Your task to perform on an android device: turn on data saver in the chrome app Image 0: 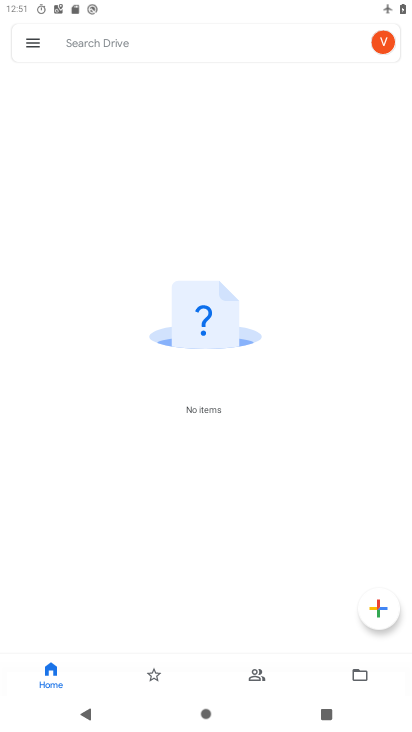
Step 0: press back button
Your task to perform on an android device: turn on data saver in the chrome app Image 1: 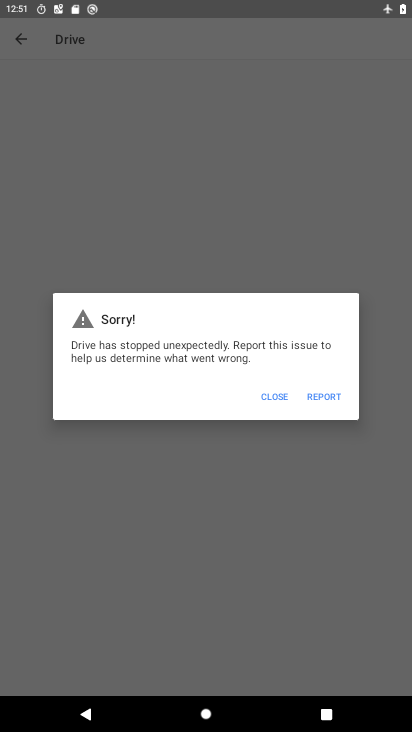
Step 1: press back button
Your task to perform on an android device: turn on data saver in the chrome app Image 2: 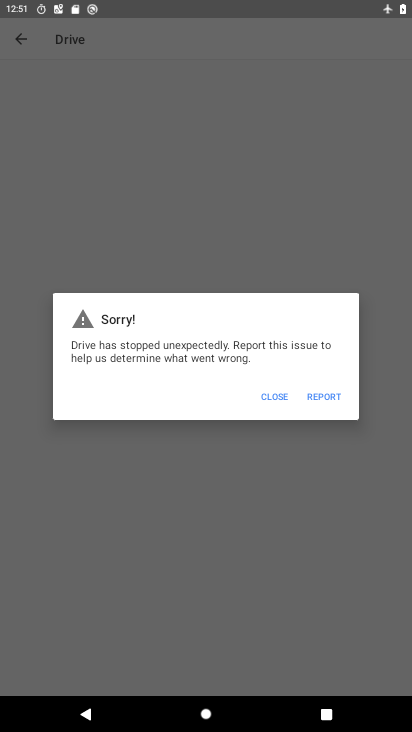
Step 2: press home button
Your task to perform on an android device: turn on data saver in the chrome app Image 3: 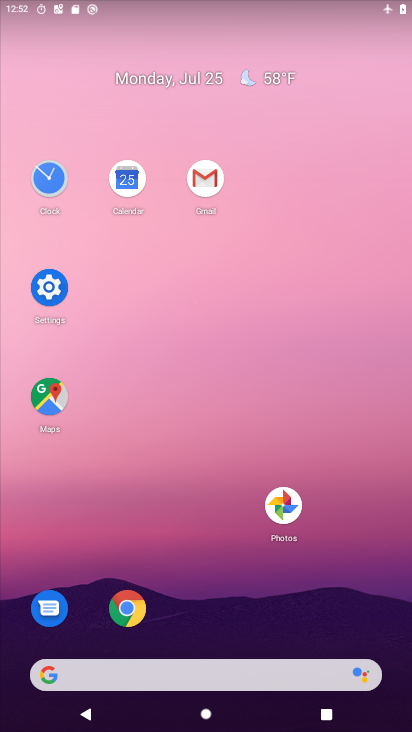
Step 3: click (132, 604)
Your task to perform on an android device: turn on data saver in the chrome app Image 4: 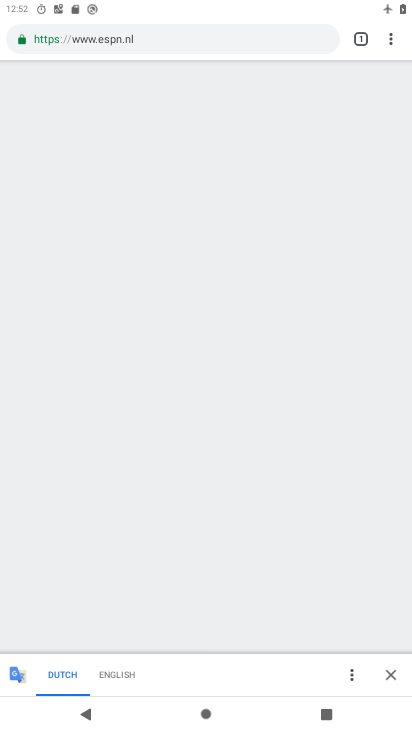
Step 4: click (391, 48)
Your task to perform on an android device: turn on data saver in the chrome app Image 5: 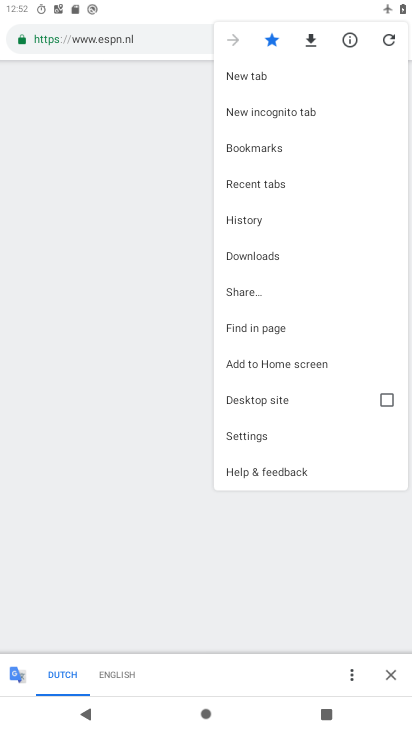
Step 5: click (232, 429)
Your task to perform on an android device: turn on data saver in the chrome app Image 6: 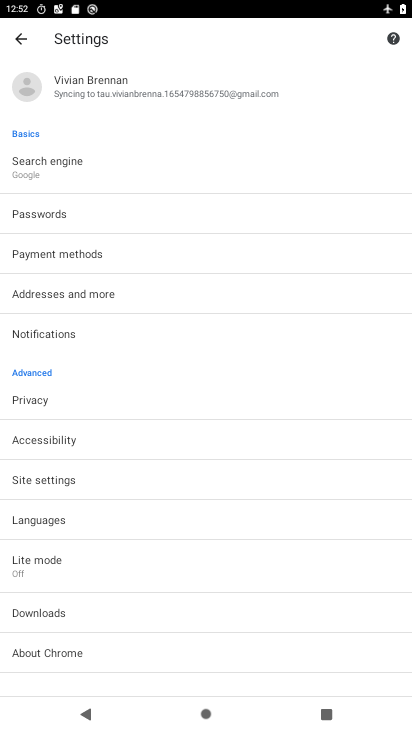
Step 6: click (49, 564)
Your task to perform on an android device: turn on data saver in the chrome app Image 7: 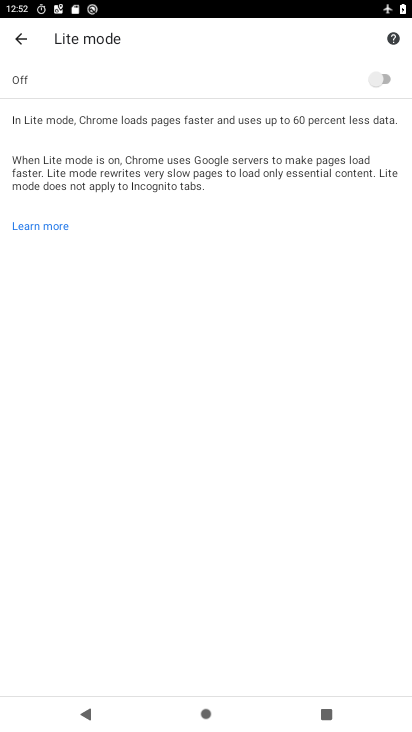
Step 7: click (385, 91)
Your task to perform on an android device: turn on data saver in the chrome app Image 8: 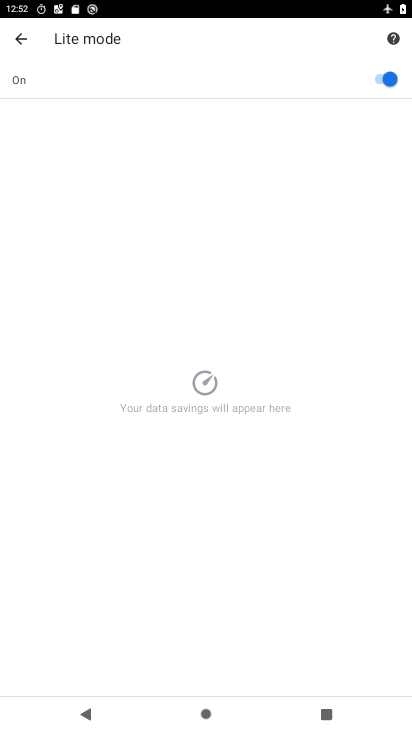
Step 8: task complete